Your task to perform on an android device: Add "logitech g903" to the cart on amazon, then select checkout. Image 0: 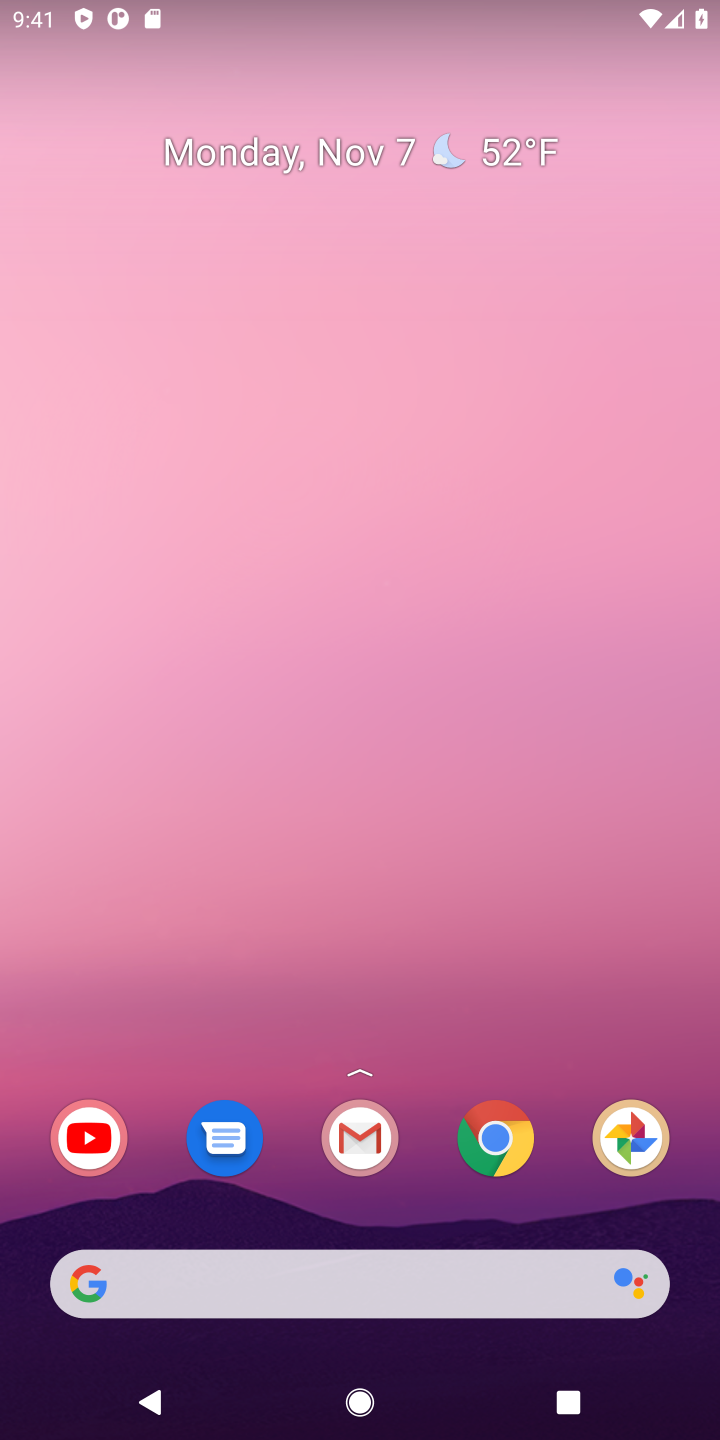
Step 0: drag from (225, 1225) to (434, 338)
Your task to perform on an android device: Add "logitech g903" to the cart on amazon, then select checkout. Image 1: 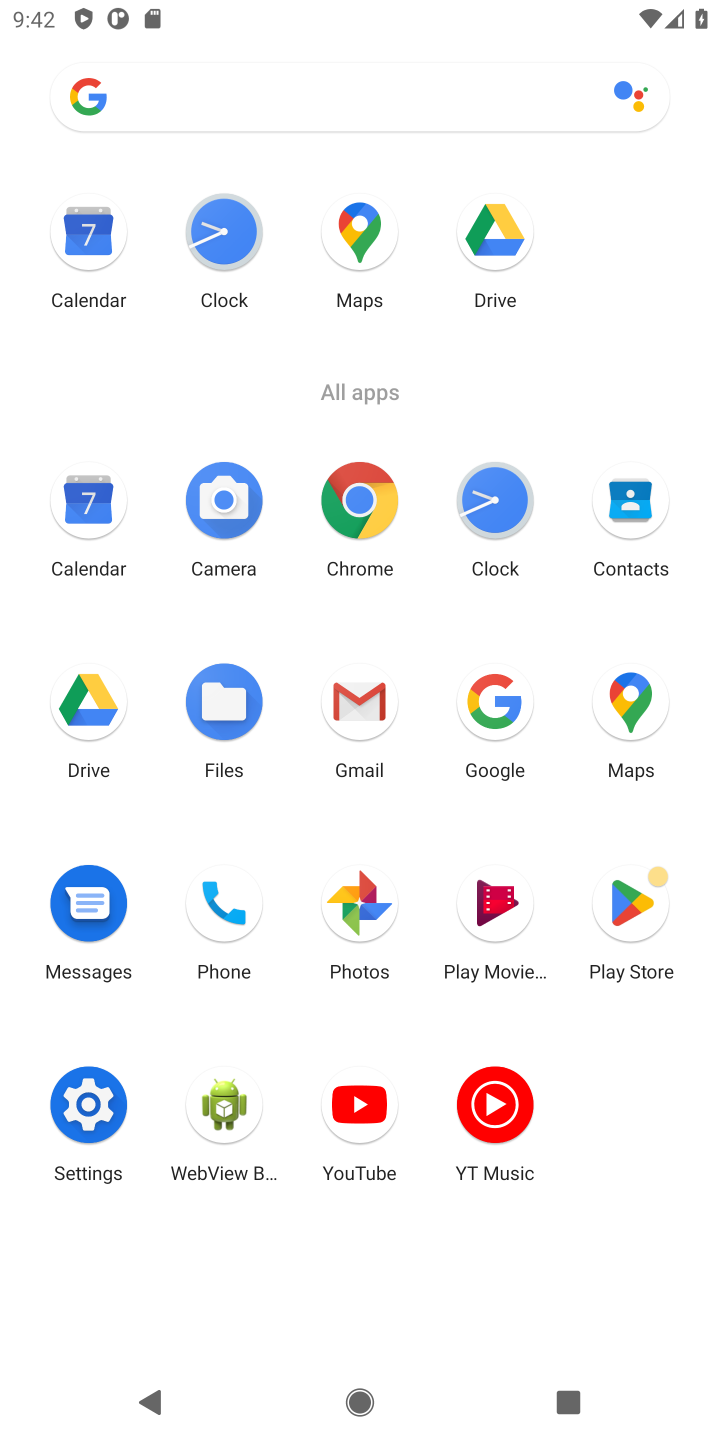
Step 1: click (506, 781)
Your task to perform on an android device: Add "logitech g903" to the cart on amazon, then select checkout. Image 2: 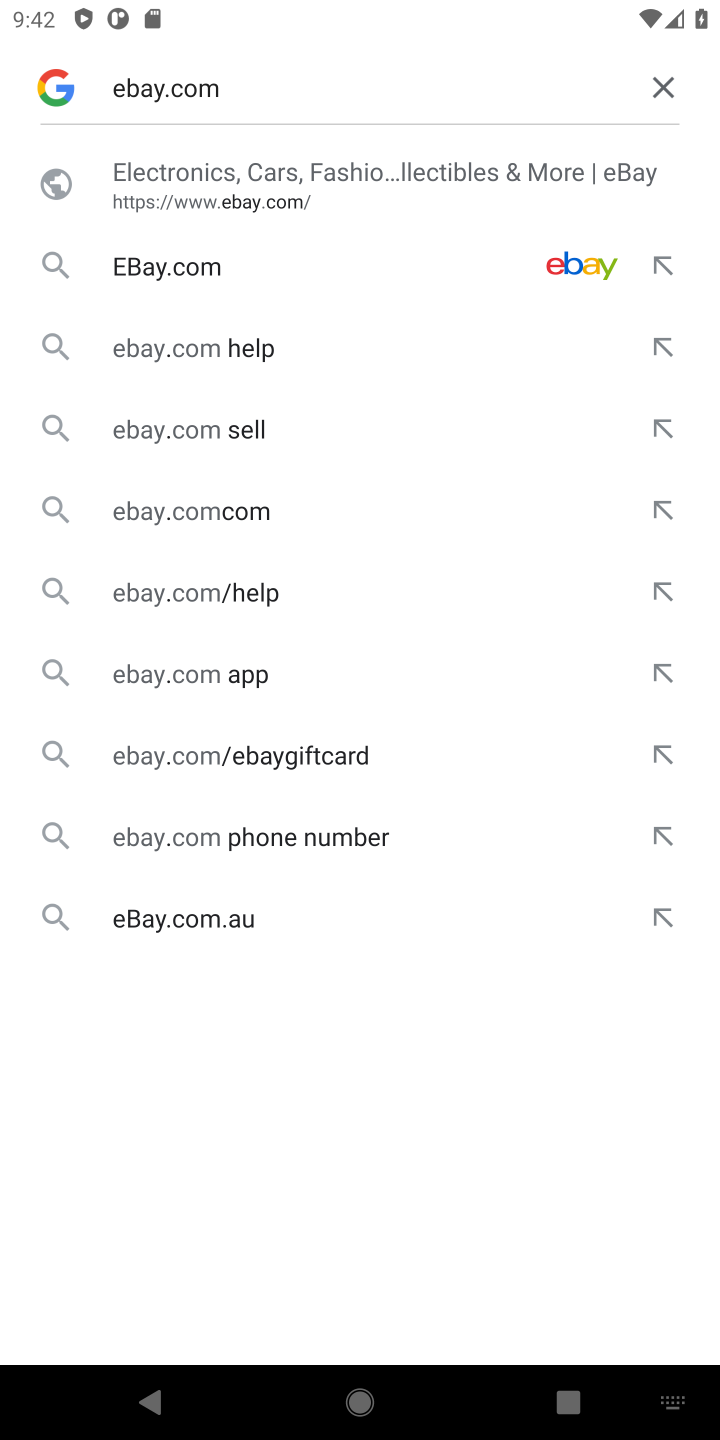
Step 2: click (648, 95)
Your task to perform on an android device: Add "logitech g903" to the cart on amazon, then select checkout. Image 3: 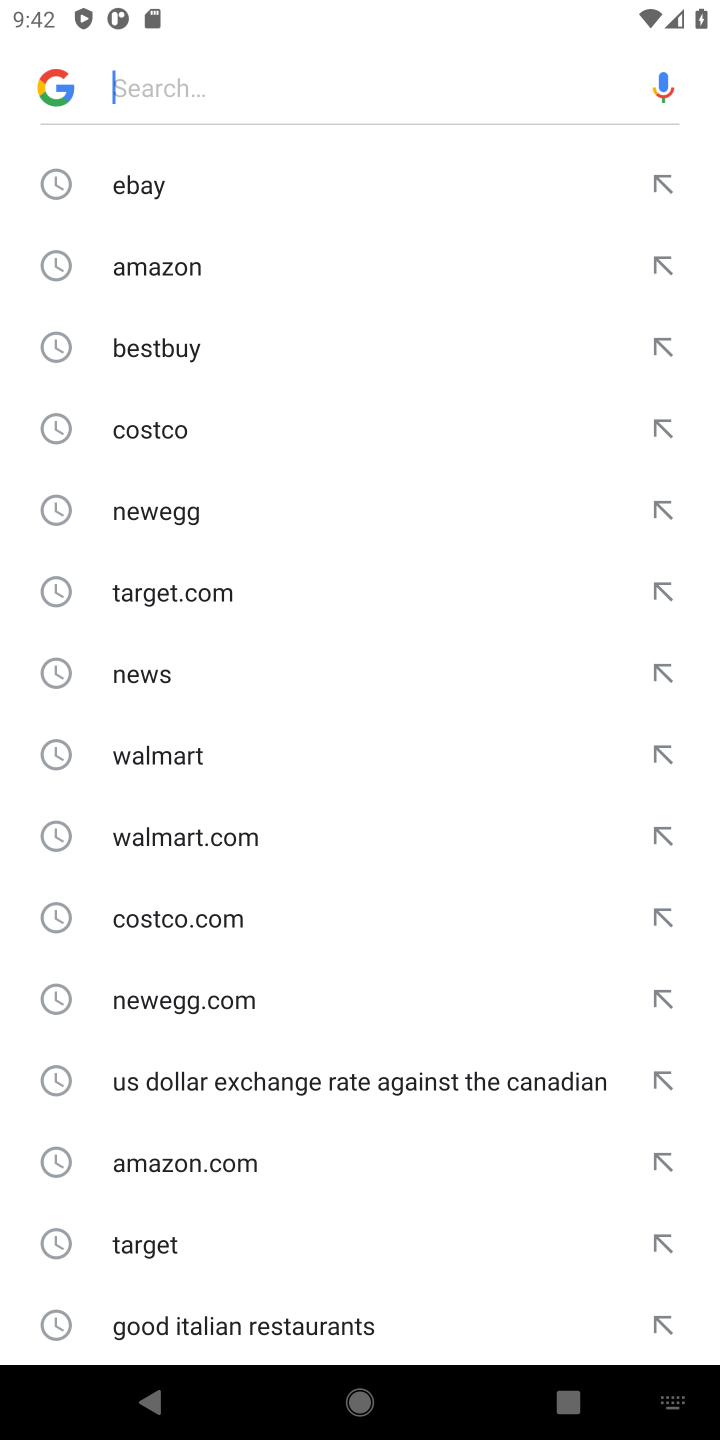
Step 3: click (174, 262)
Your task to perform on an android device: Add "logitech g903" to the cart on amazon, then select checkout. Image 4: 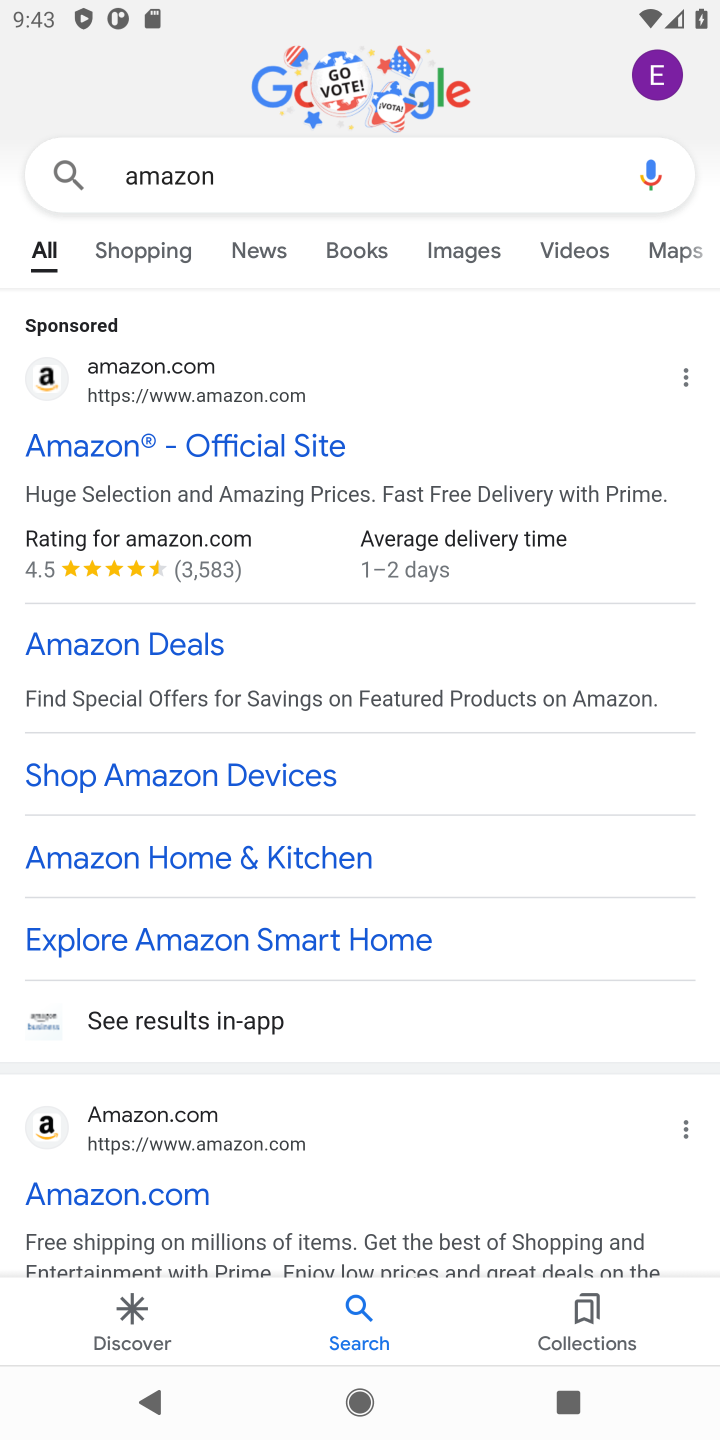
Step 4: click (147, 460)
Your task to perform on an android device: Add "logitech g903" to the cart on amazon, then select checkout. Image 5: 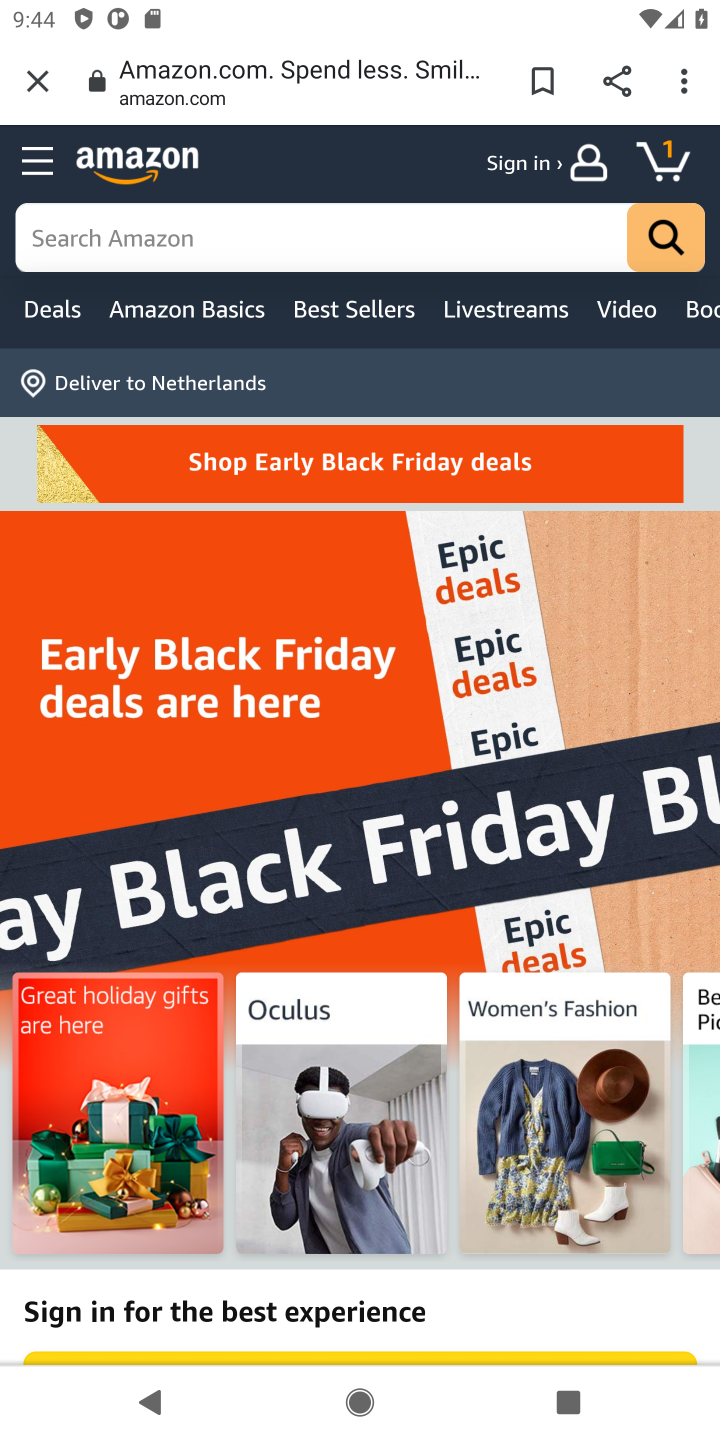
Step 5: click (416, 246)
Your task to perform on an android device: Add "logitech g903" to the cart on amazon, then select checkout. Image 6: 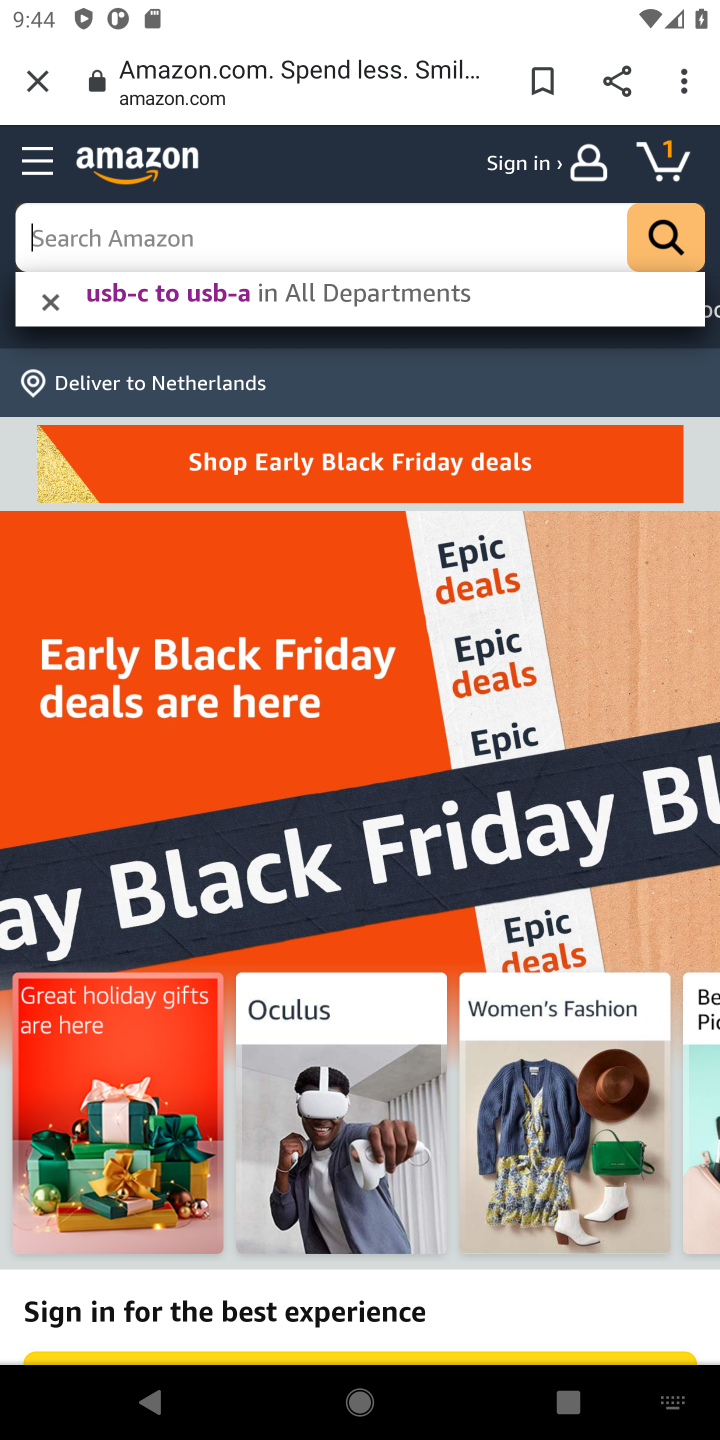
Step 6: type "logitech g903"
Your task to perform on an android device: Add "logitech g903" to the cart on amazon, then select checkout. Image 7: 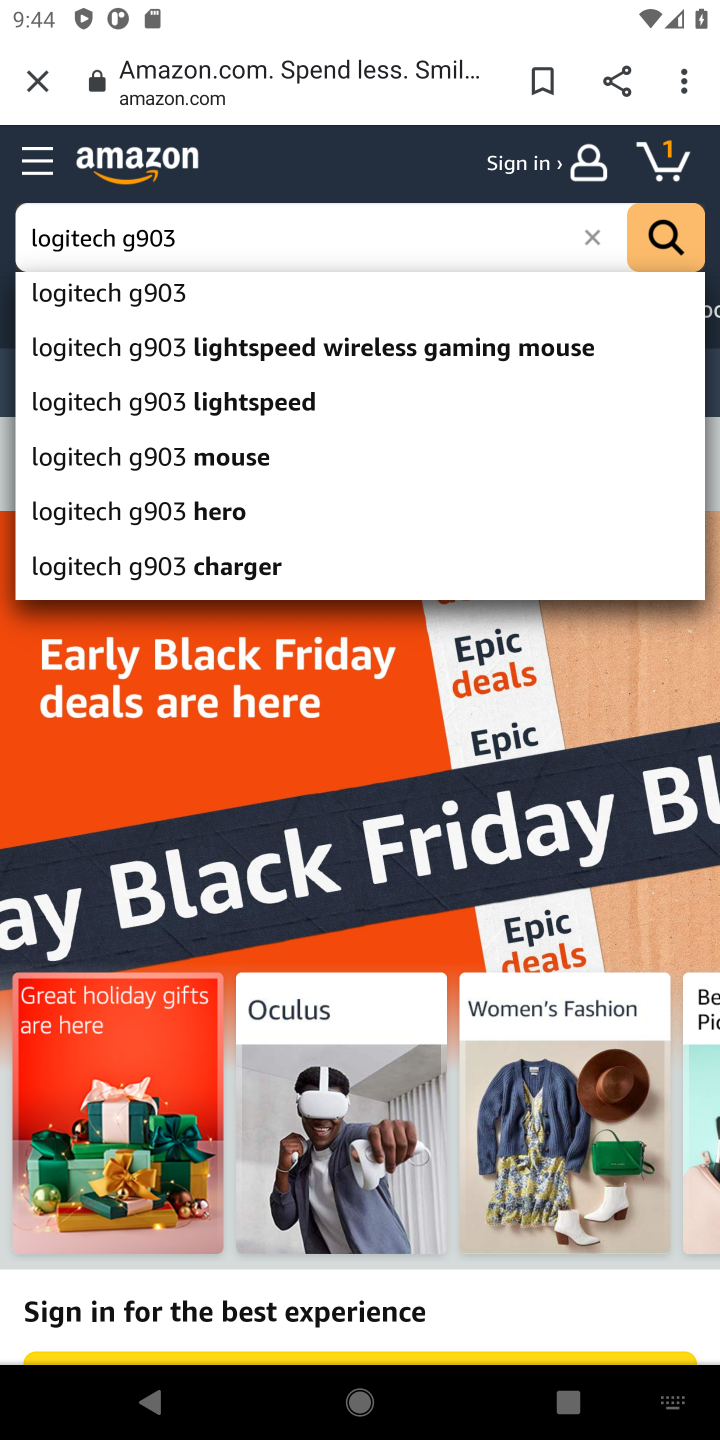
Step 7: click (211, 282)
Your task to perform on an android device: Add "logitech g903" to the cart on amazon, then select checkout. Image 8: 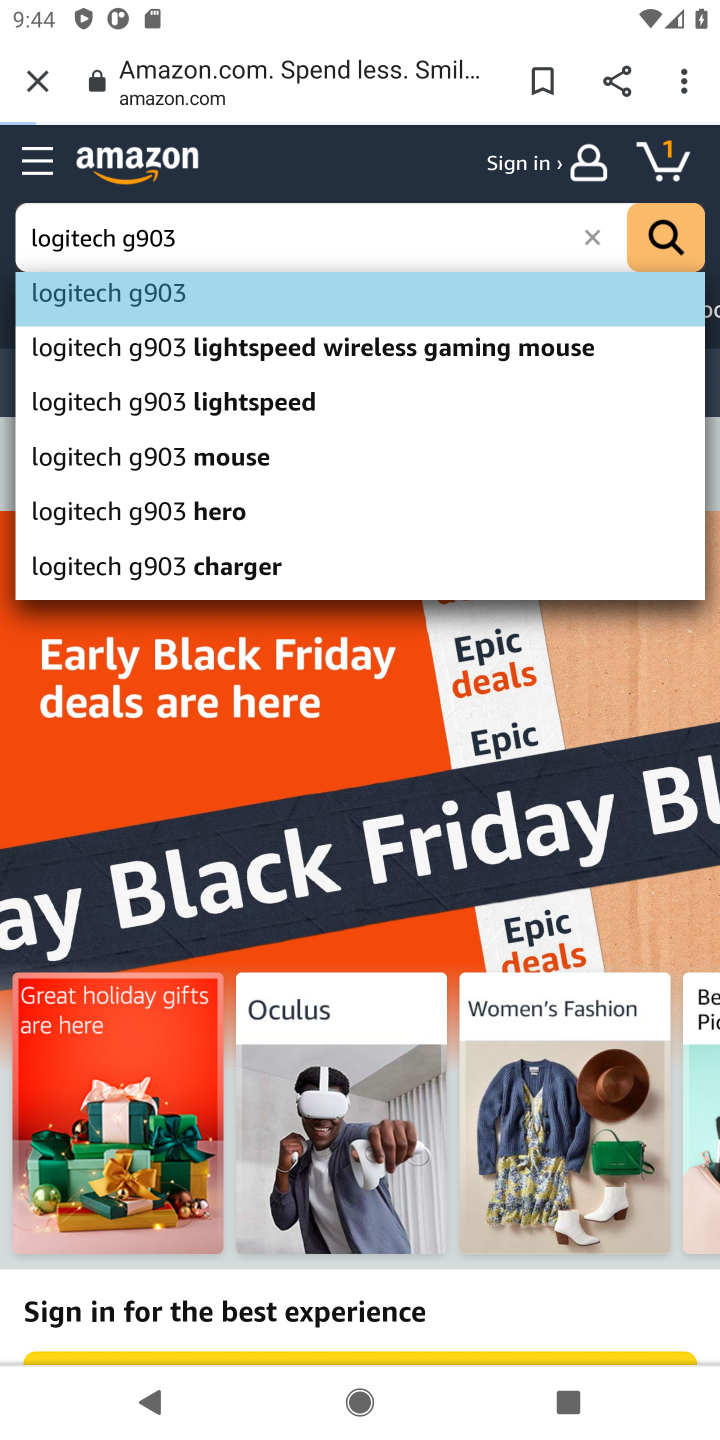
Step 8: click (211, 282)
Your task to perform on an android device: Add "logitech g903" to the cart on amazon, then select checkout. Image 9: 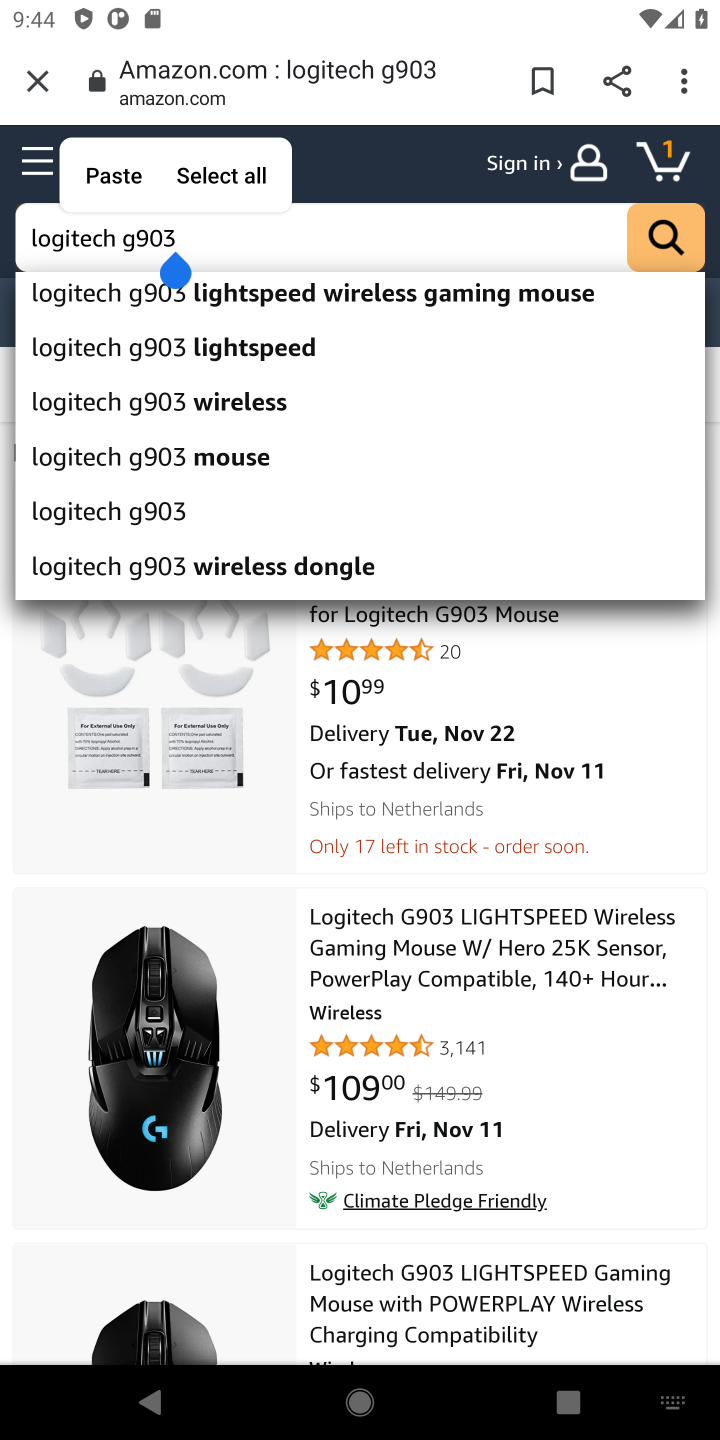
Step 9: click (347, 511)
Your task to perform on an android device: Add "logitech g903" to the cart on amazon, then select checkout. Image 10: 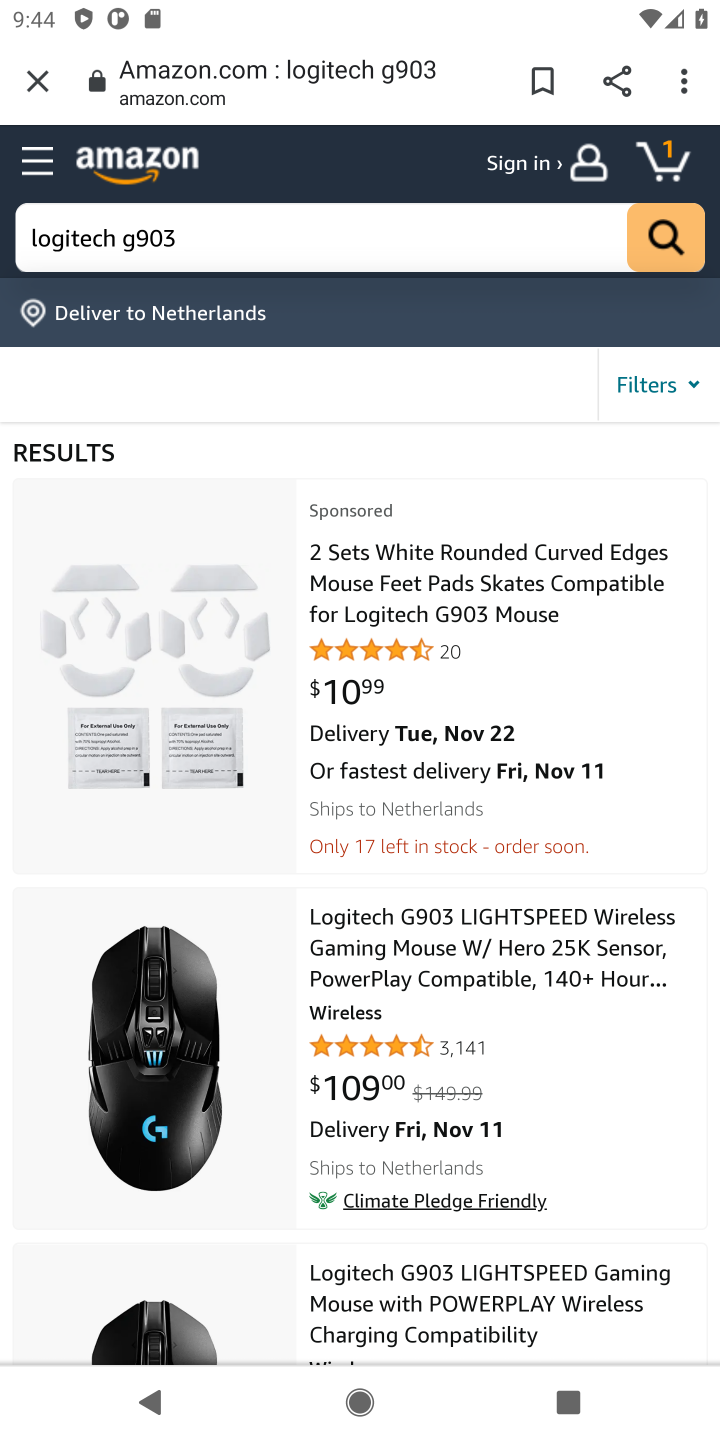
Step 10: click (481, 957)
Your task to perform on an android device: Add "logitech g903" to the cart on amazon, then select checkout. Image 11: 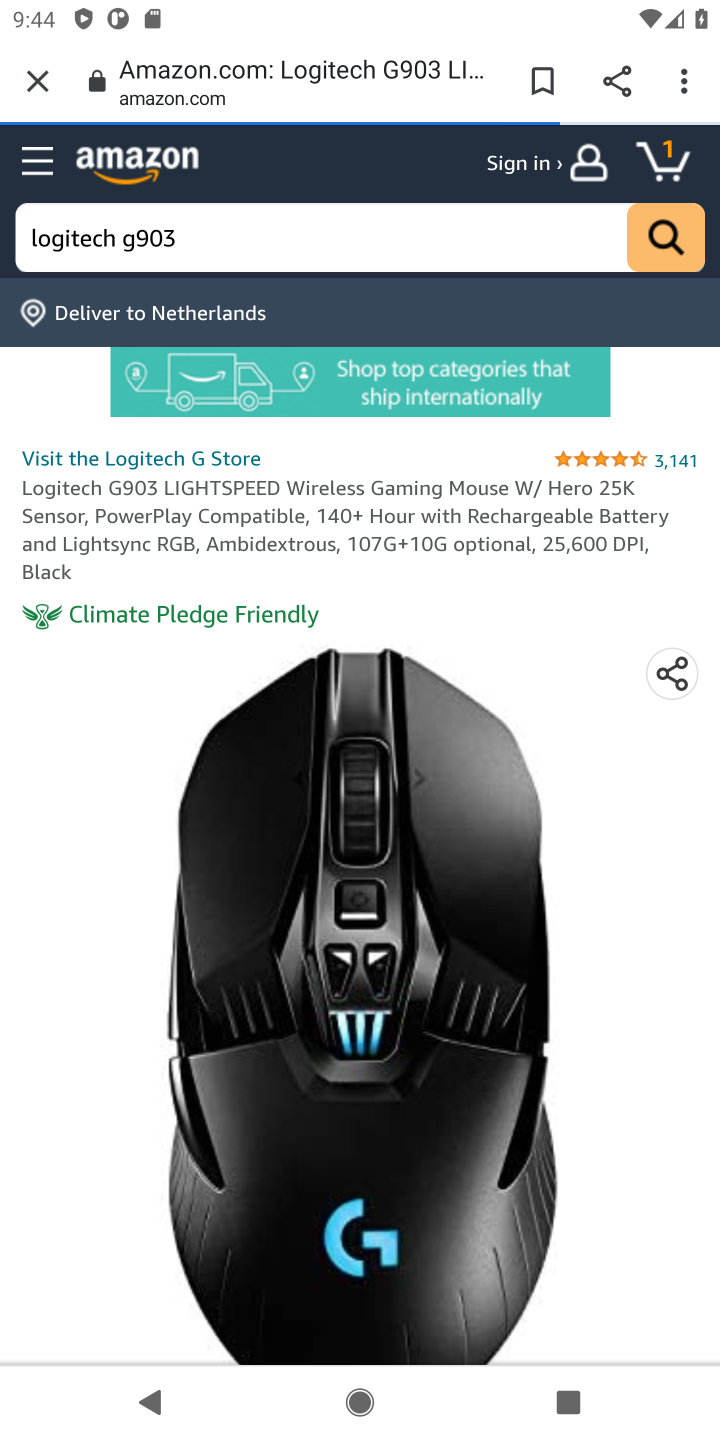
Step 11: drag from (481, 1011) to (457, 402)
Your task to perform on an android device: Add "logitech g903" to the cart on amazon, then select checkout. Image 12: 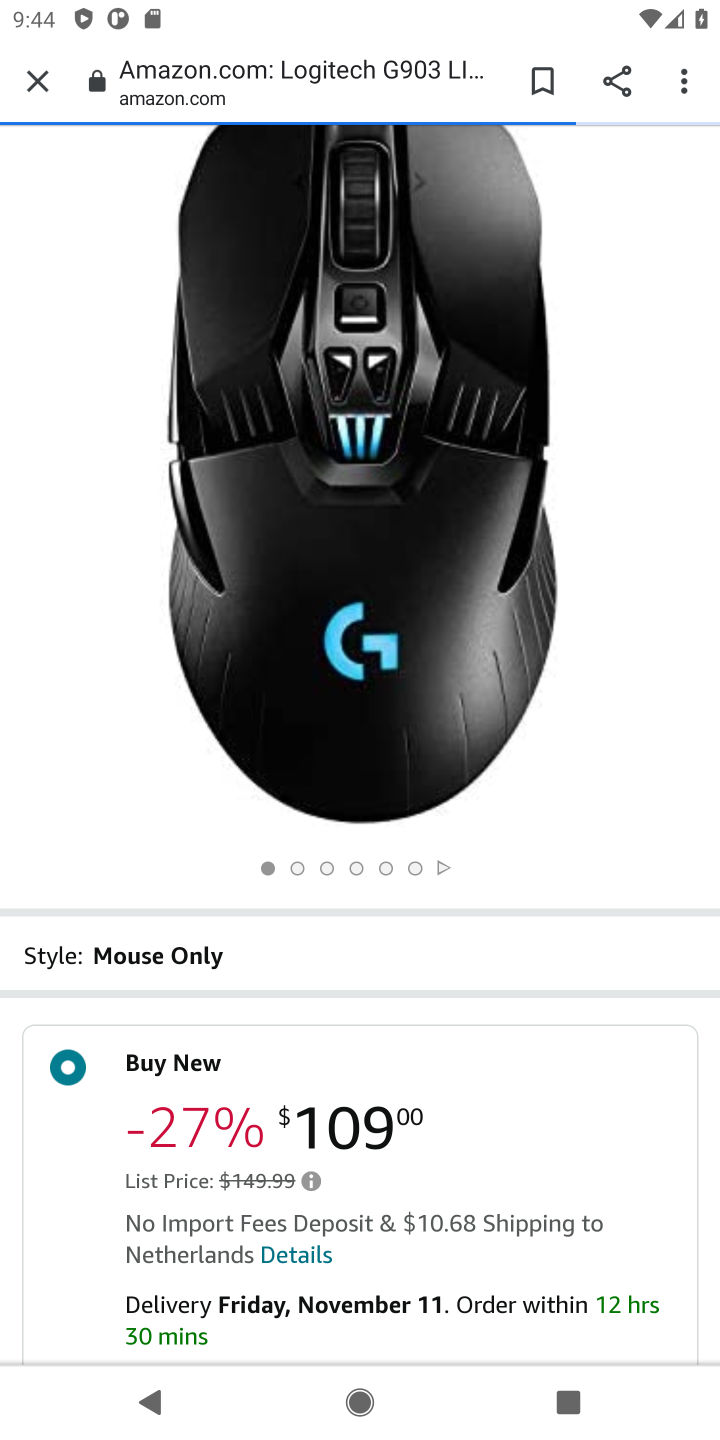
Step 12: drag from (439, 412) to (417, 292)
Your task to perform on an android device: Add "logitech g903" to the cart on amazon, then select checkout. Image 13: 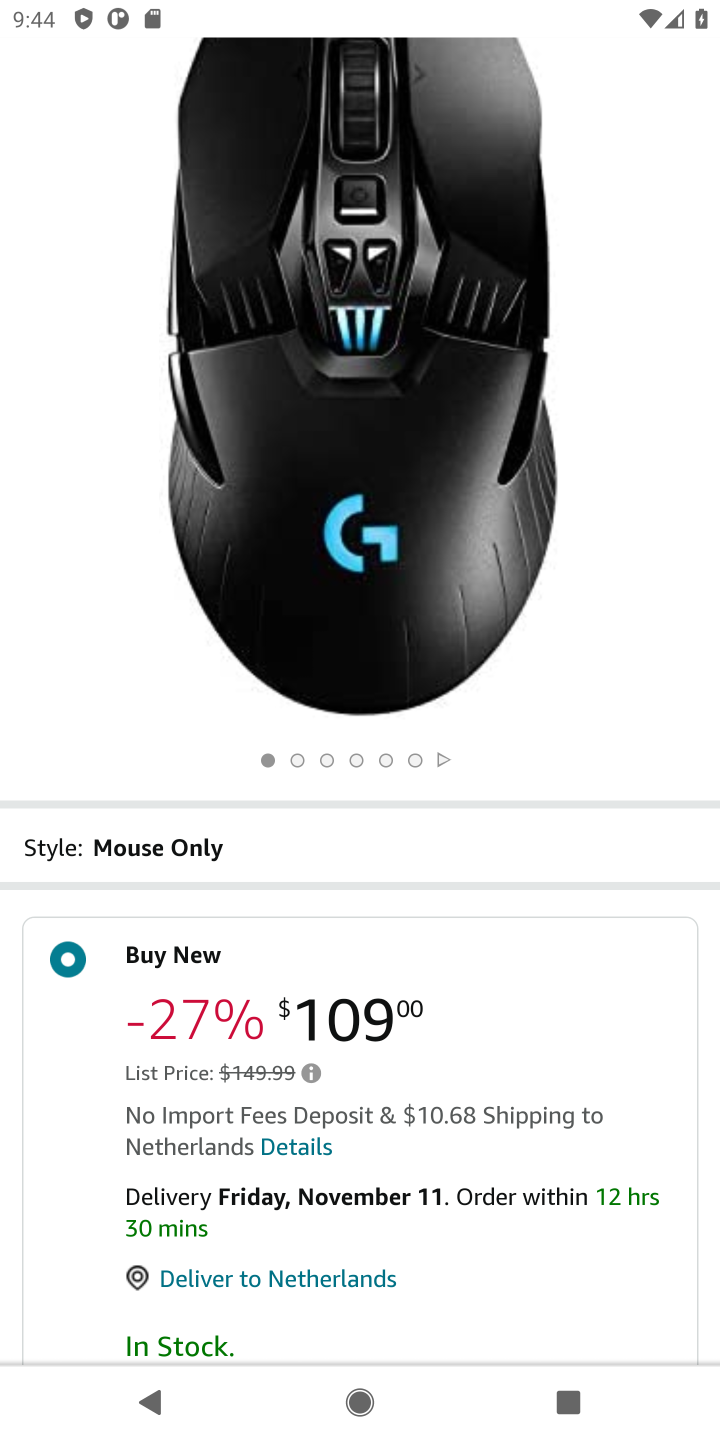
Step 13: drag from (423, 1070) to (415, 332)
Your task to perform on an android device: Add "logitech g903" to the cart on amazon, then select checkout. Image 14: 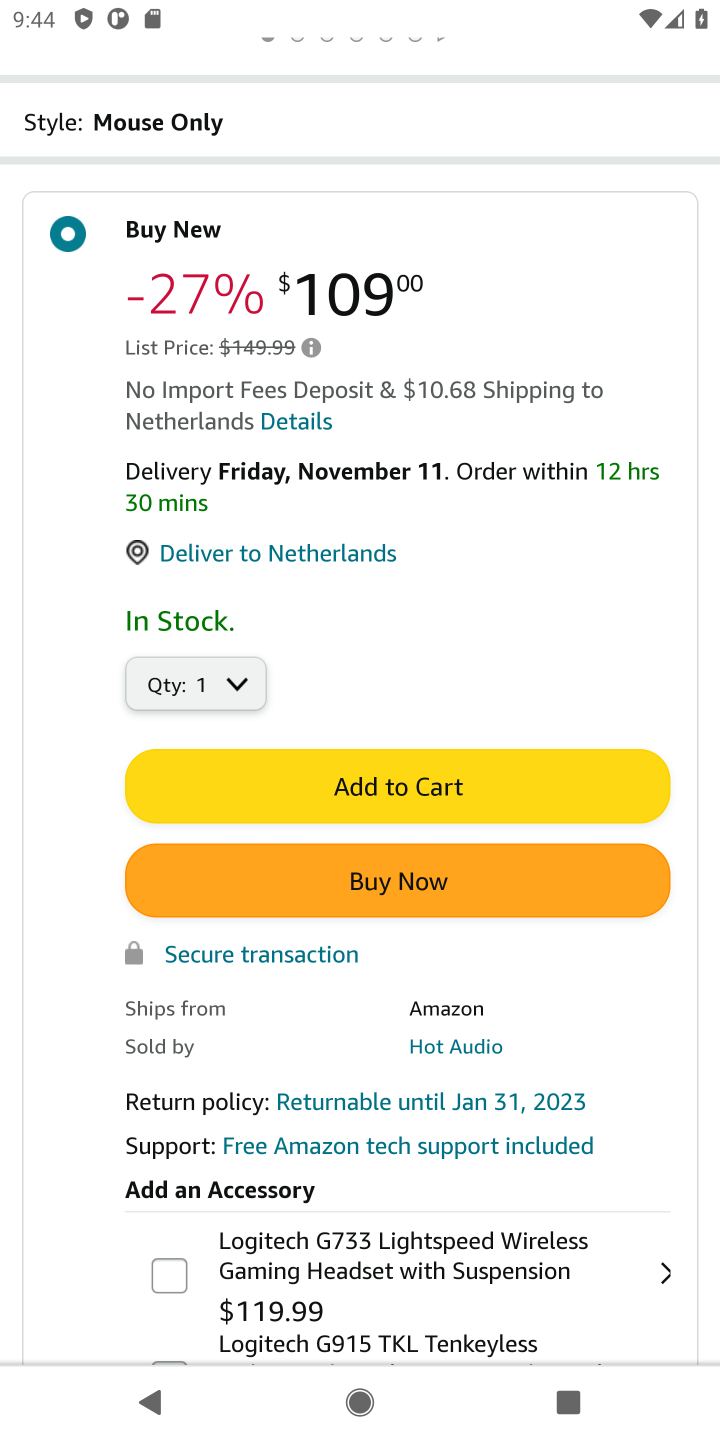
Step 14: click (415, 809)
Your task to perform on an android device: Add "logitech g903" to the cart on amazon, then select checkout. Image 15: 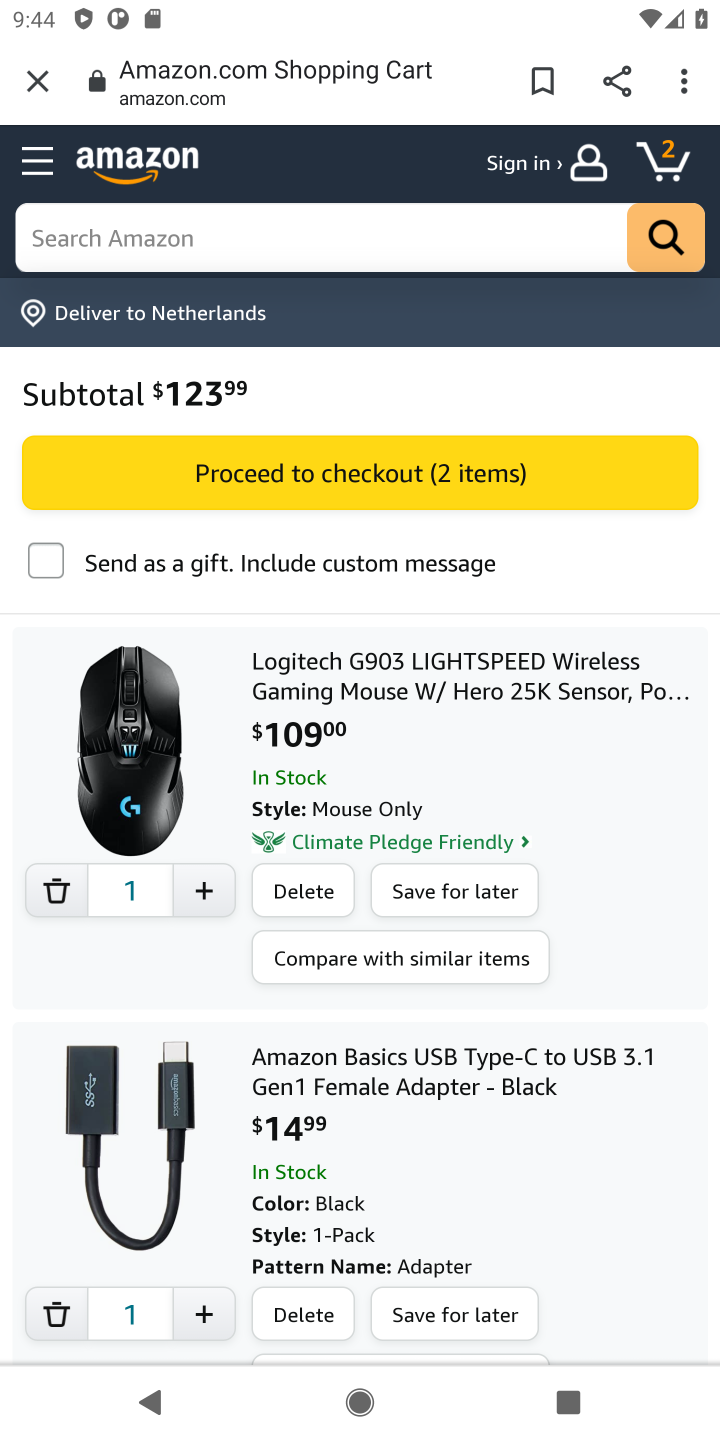
Step 15: click (480, 483)
Your task to perform on an android device: Add "logitech g903" to the cart on amazon, then select checkout. Image 16: 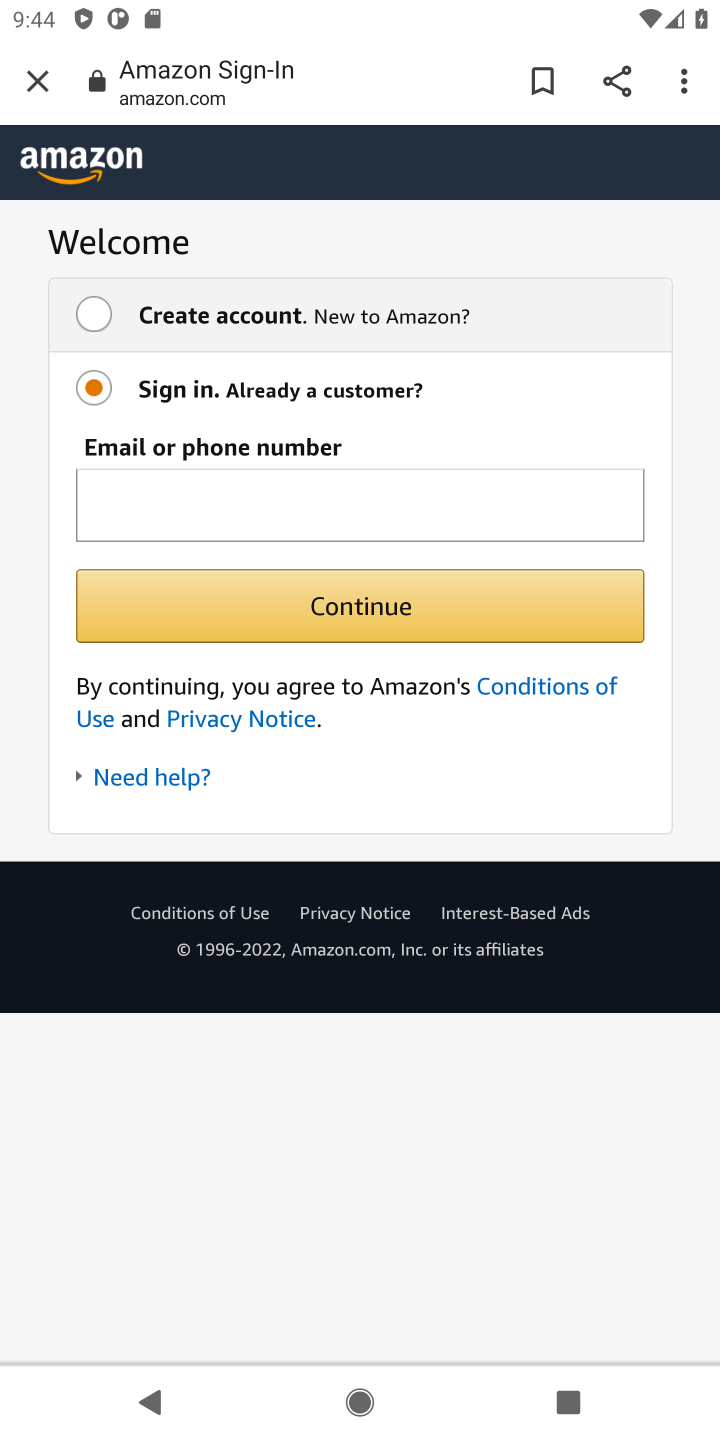
Step 16: task complete